Your task to perform on an android device: Is it going to rain this weekend? Image 0: 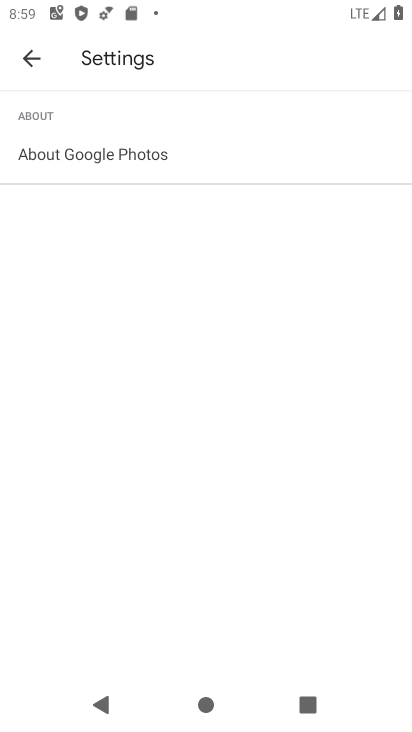
Step 0: press home button
Your task to perform on an android device: Is it going to rain this weekend? Image 1: 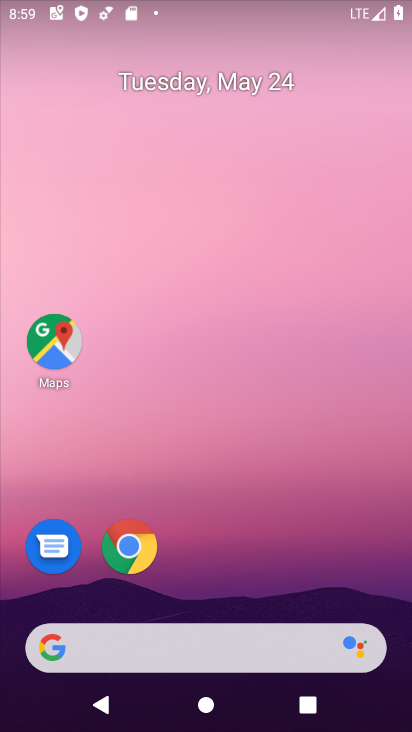
Step 1: click (256, 657)
Your task to perform on an android device: Is it going to rain this weekend? Image 2: 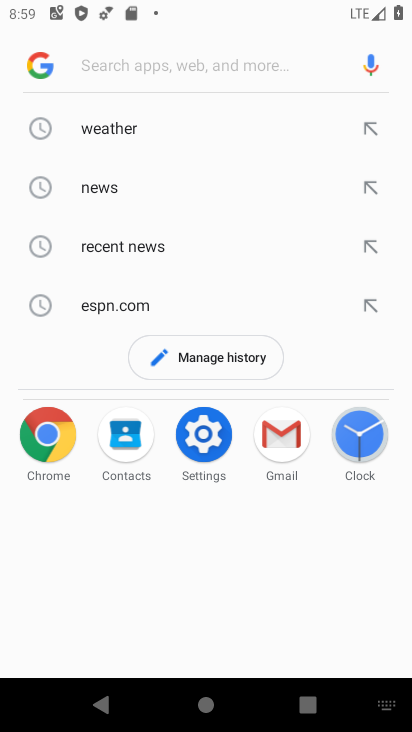
Step 2: click (104, 123)
Your task to perform on an android device: Is it going to rain this weekend? Image 3: 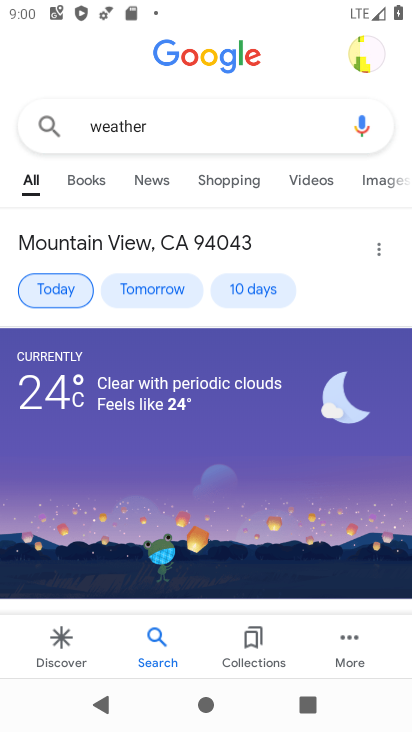
Step 3: click (74, 292)
Your task to perform on an android device: Is it going to rain this weekend? Image 4: 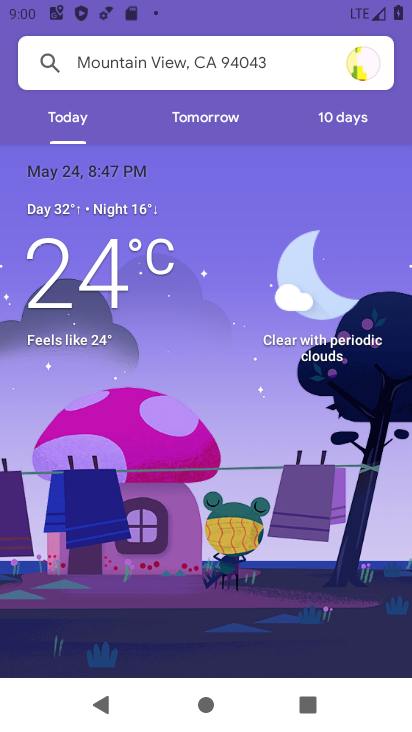
Step 4: click (344, 115)
Your task to perform on an android device: Is it going to rain this weekend? Image 5: 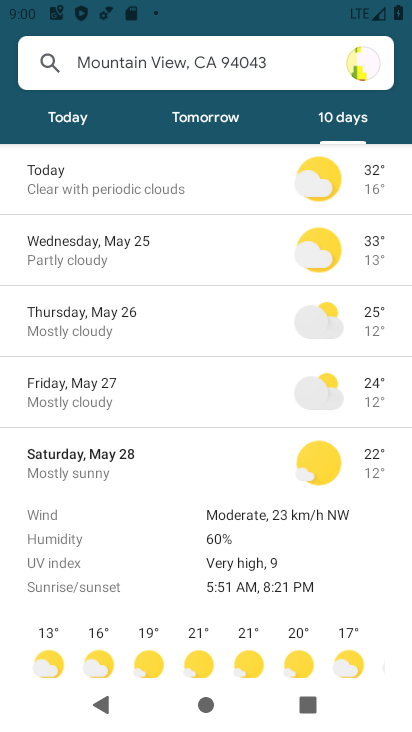
Step 5: task complete